Your task to perform on an android device: Open settings on Google Maps Image 0: 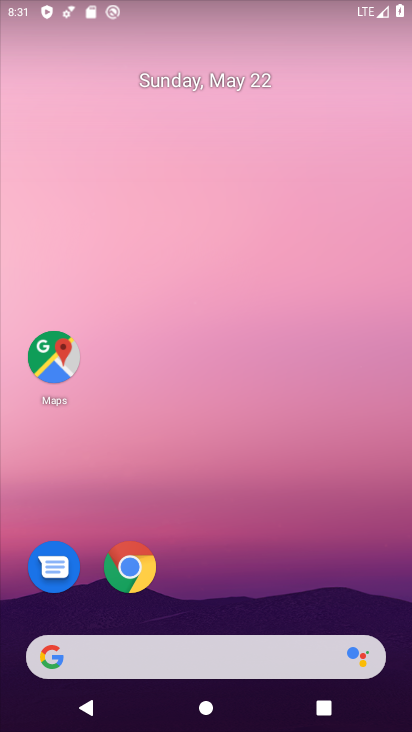
Step 0: click (54, 354)
Your task to perform on an android device: Open settings on Google Maps Image 1: 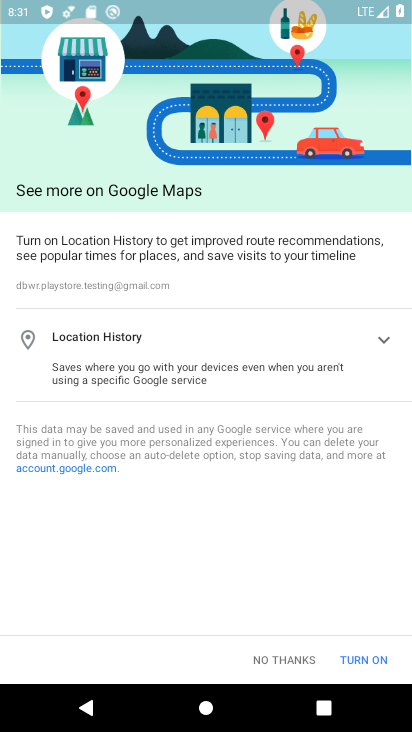
Step 1: task complete